Your task to perform on an android device: clear all cookies in the chrome app Image 0: 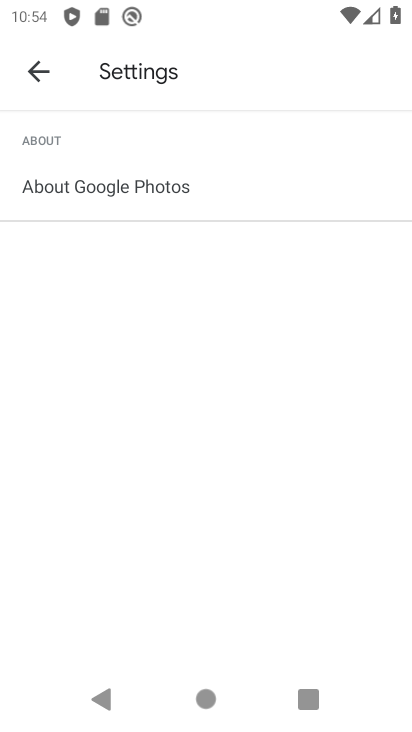
Step 0: press home button
Your task to perform on an android device: clear all cookies in the chrome app Image 1: 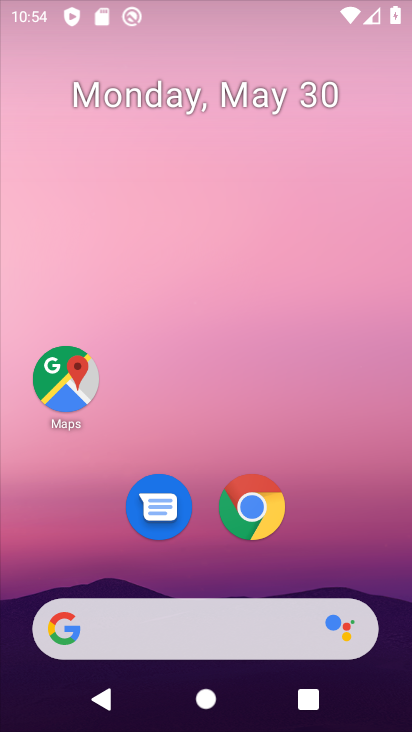
Step 1: drag from (162, 731) to (180, 18)
Your task to perform on an android device: clear all cookies in the chrome app Image 2: 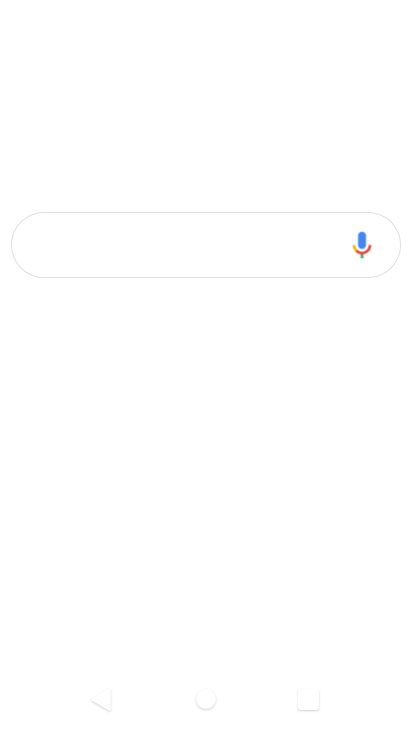
Step 2: click (254, 504)
Your task to perform on an android device: clear all cookies in the chrome app Image 3: 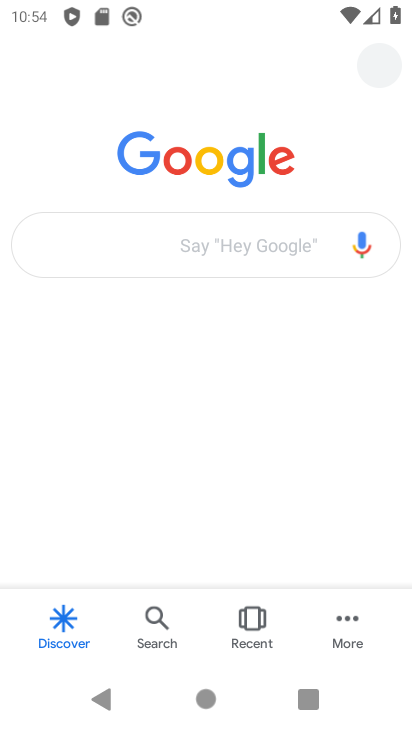
Step 3: press home button
Your task to perform on an android device: clear all cookies in the chrome app Image 4: 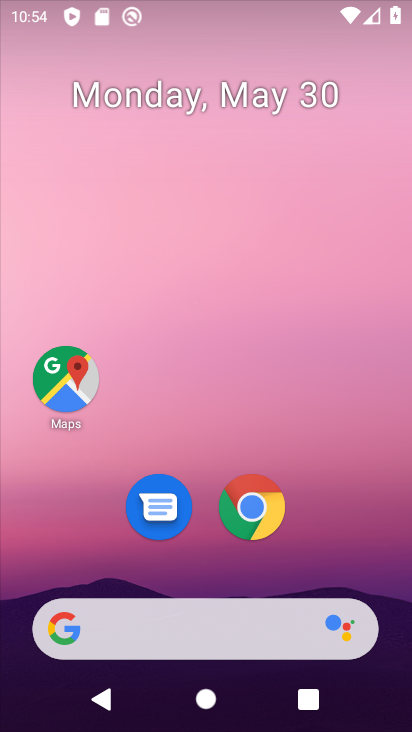
Step 4: click (264, 516)
Your task to perform on an android device: clear all cookies in the chrome app Image 5: 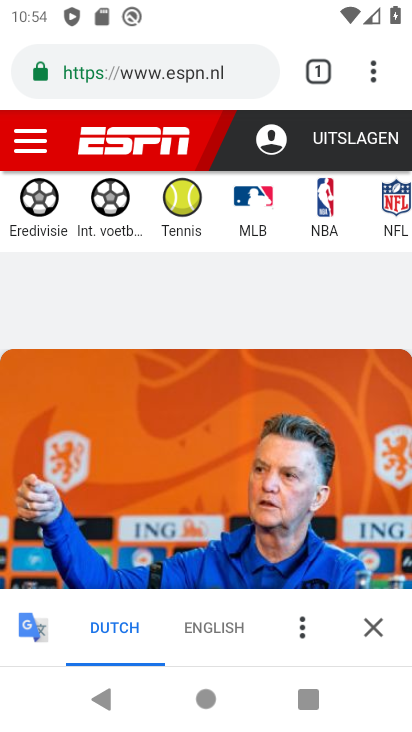
Step 5: click (370, 76)
Your task to perform on an android device: clear all cookies in the chrome app Image 6: 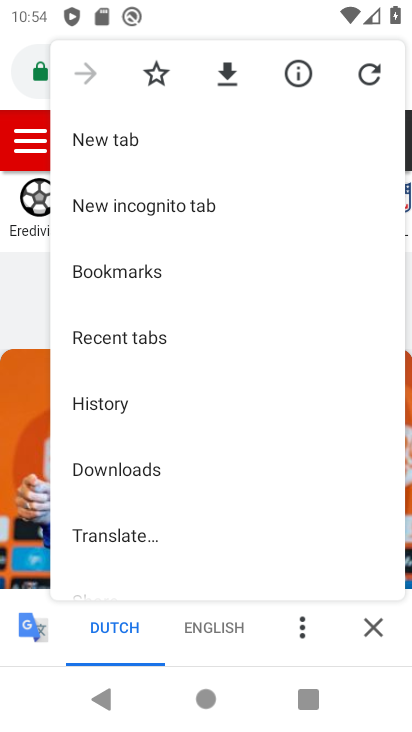
Step 6: drag from (230, 514) to (300, 140)
Your task to perform on an android device: clear all cookies in the chrome app Image 7: 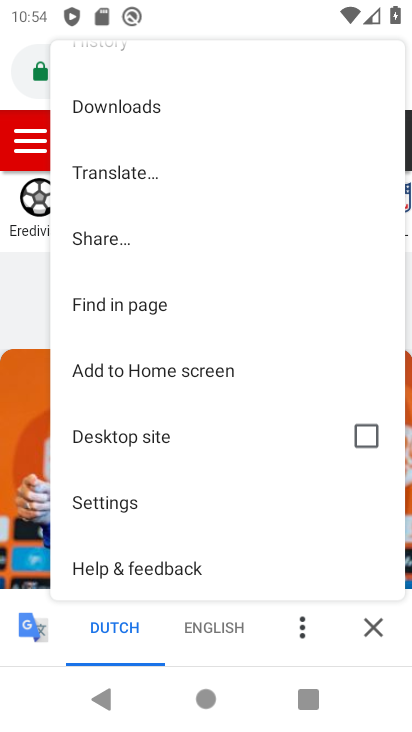
Step 7: click (118, 510)
Your task to perform on an android device: clear all cookies in the chrome app Image 8: 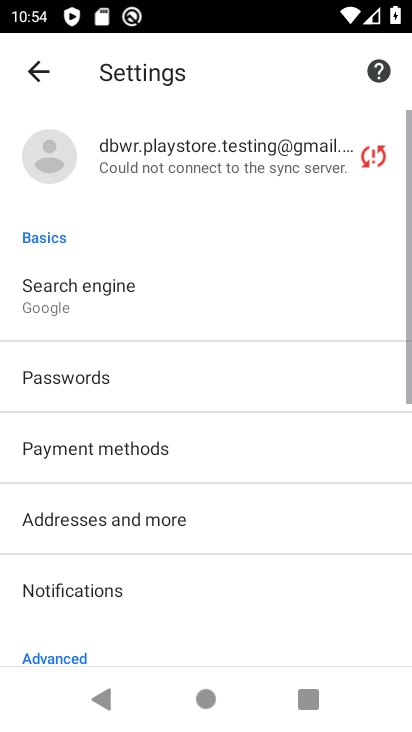
Step 8: drag from (136, 596) to (184, 233)
Your task to perform on an android device: clear all cookies in the chrome app Image 9: 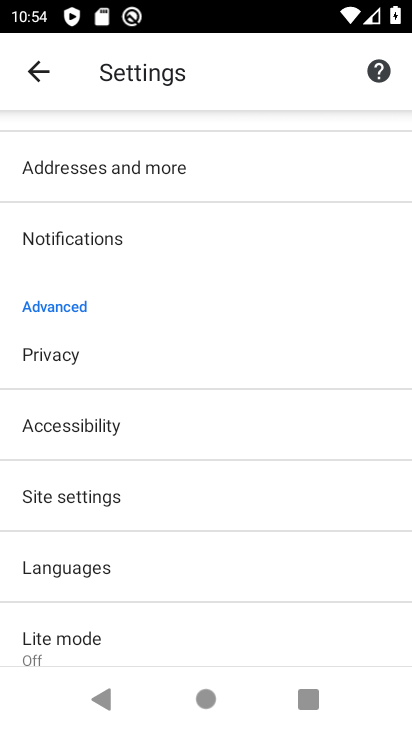
Step 9: click (75, 362)
Your task to perform on an android device: clear all cookies in the chrome app Image 10: 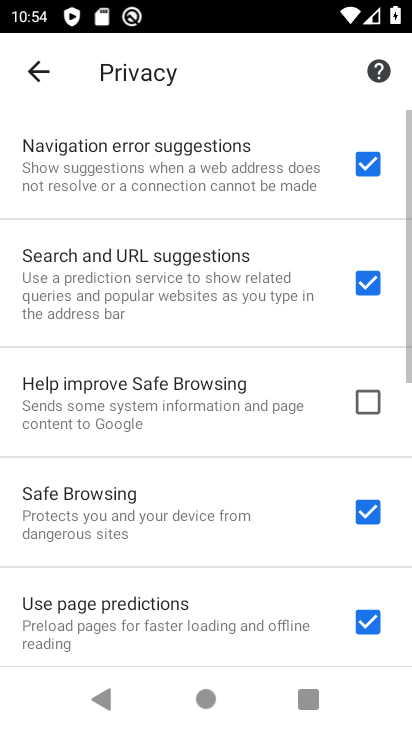
Step 10: drag from (258, 519) to (230, 218)
Your task to perform on an android device: clear all cookies in the chrome app Image 11: 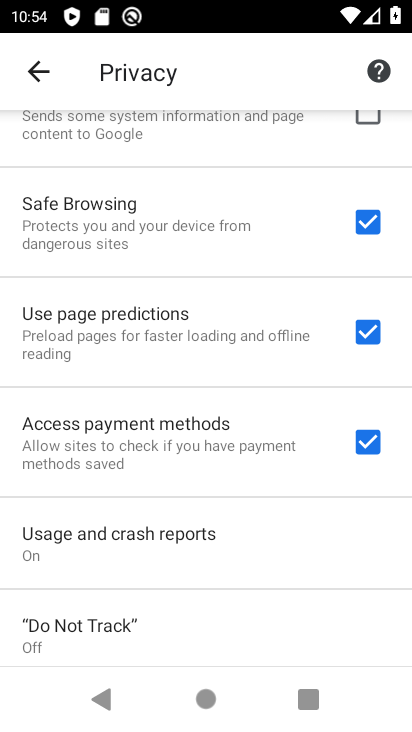
Step 11: drag from (177, 600) to (251, 291)
Your task to perform on an android device: clear all cookies in the chrome app Image 12: 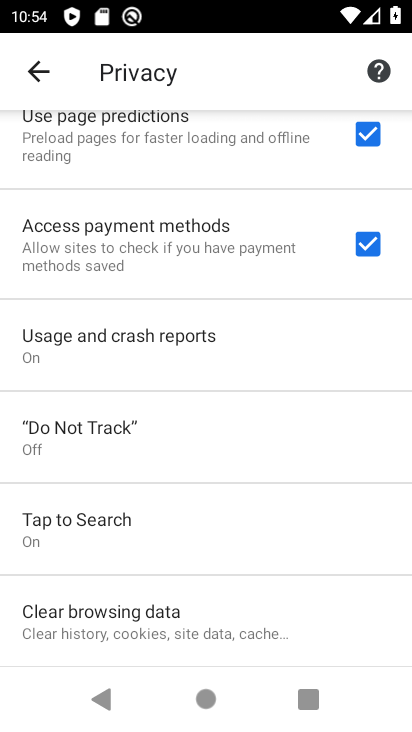
Step 12: drag from (208, 610) to (206, 412)
Your task to perform on an android device: clear all cookies in the chrome app Image 13: 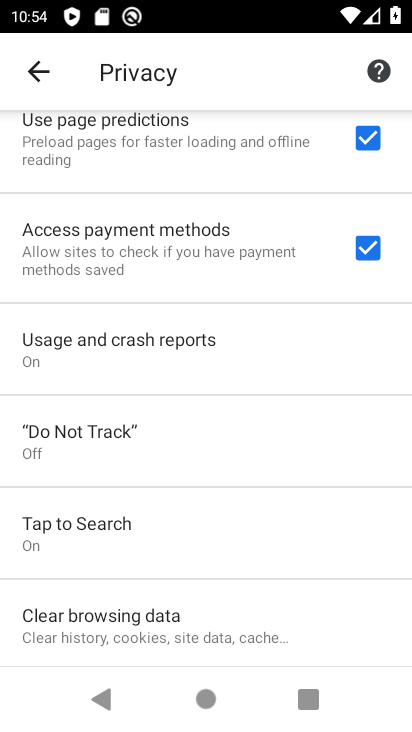
Step 13: click (128, 627)
Your task to perform on an android device: clear all cookies in the chrome app Image 14: 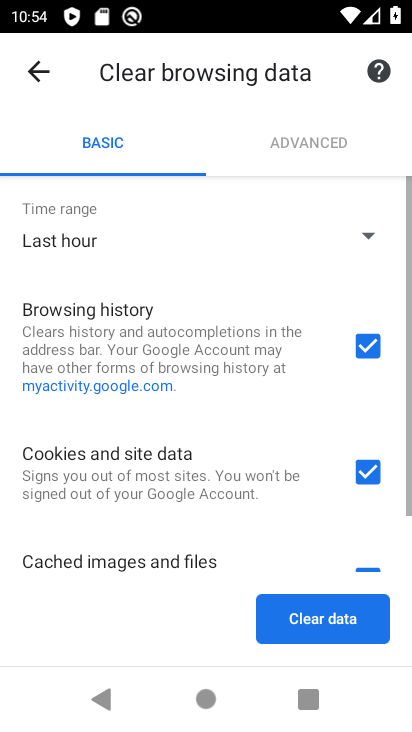
Step 14: click (251, 287)
Your task to perform on an android device: clear all cookies in the chrome app Image 15: 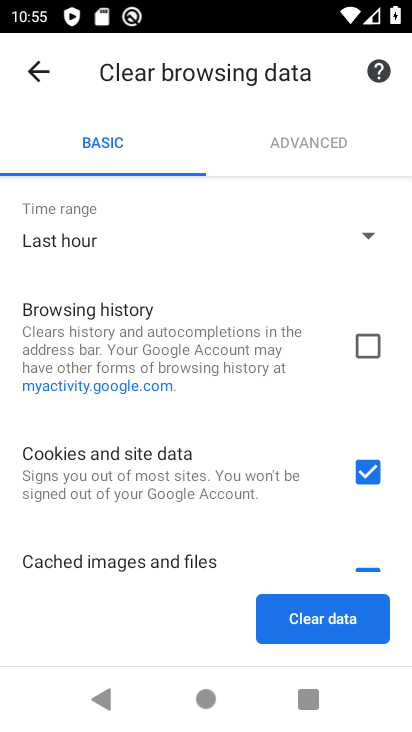
Step 15: click (373, 562)
Your task to perform on an android device: clear all cookies in the chrome app Image 16: 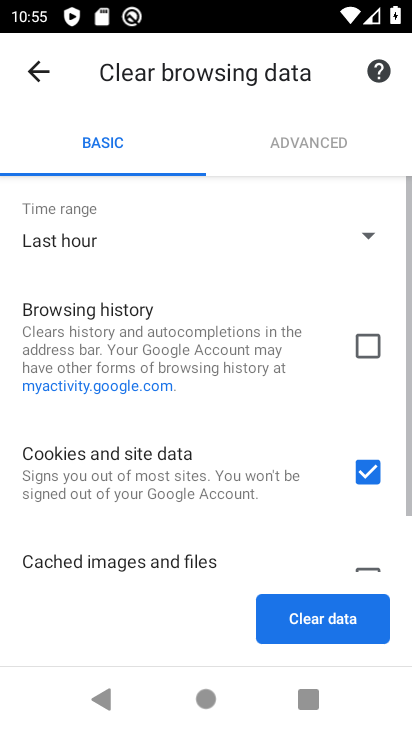
Step 16: click (371, 230)
Your task to perform on an android device: clear all cookies in the chrome app Image 17: 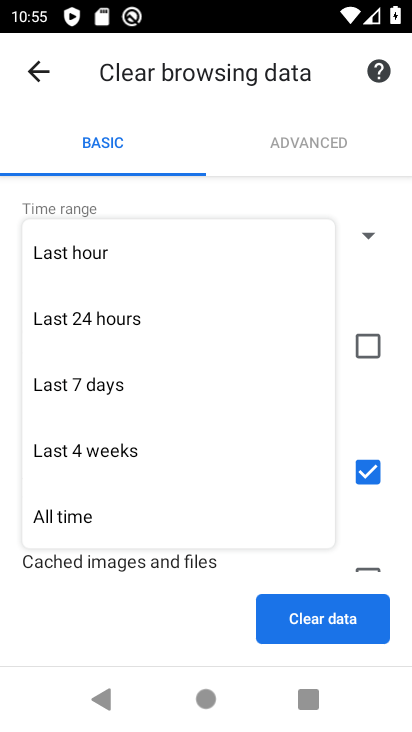
Step 17: click (62, 519)
Your task to perform on an android device: clear all cookies in the chrome app Image 18: 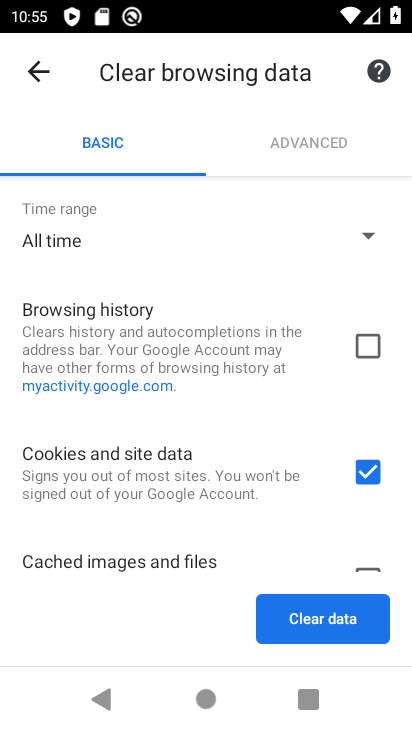
Step 18: click (290, 628)
Your task to perform on an android device: clear all cookies in the chrome app Image 19: 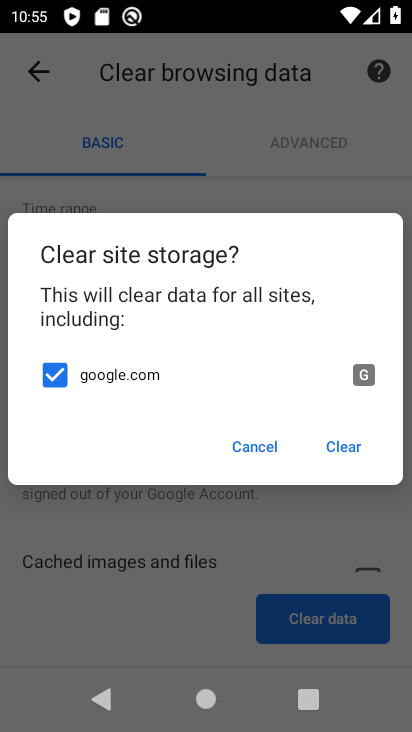
Step 19: click (349, 452)
Your task to perform on an android device: clear all cookies in the chrome app Image 20: 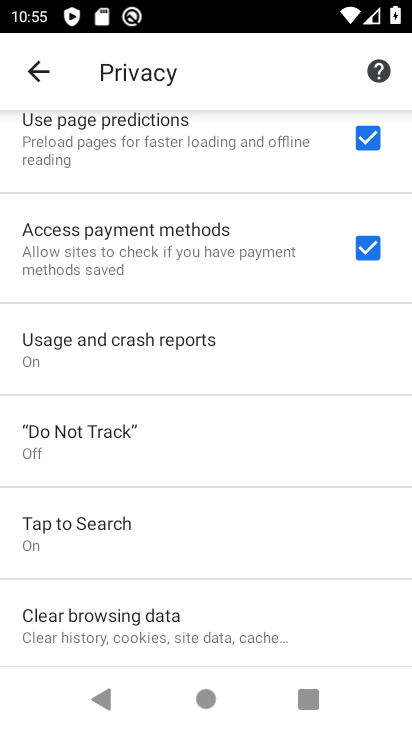
Step 20: task complete